Your task to perform on an android device: find snoozed emails in the gmail app Image 0: 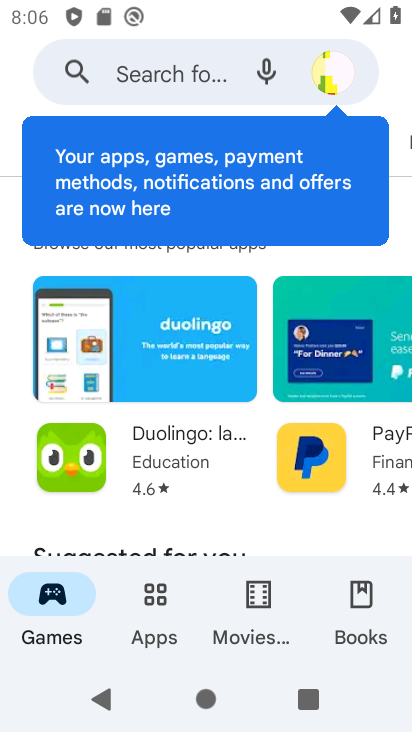
Step 0: press back button
Your task to perform on an android device: find snoozed emails in the gmail app Image 1: 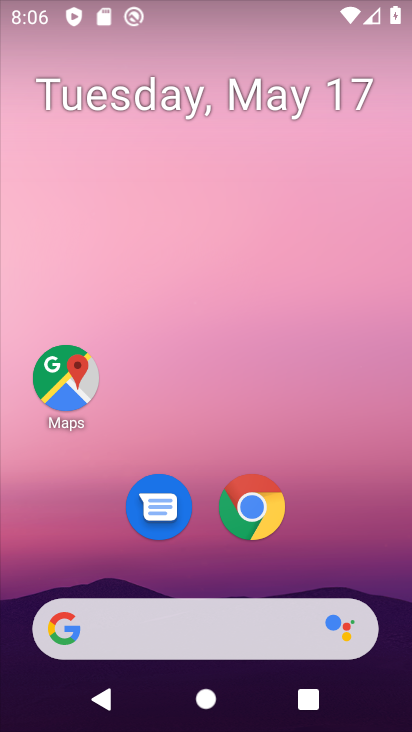
Step 1: drag from (339, 543) to (215, 58)
Your task to perform on an android device: find snoozed emails in the gmail app Image 2: 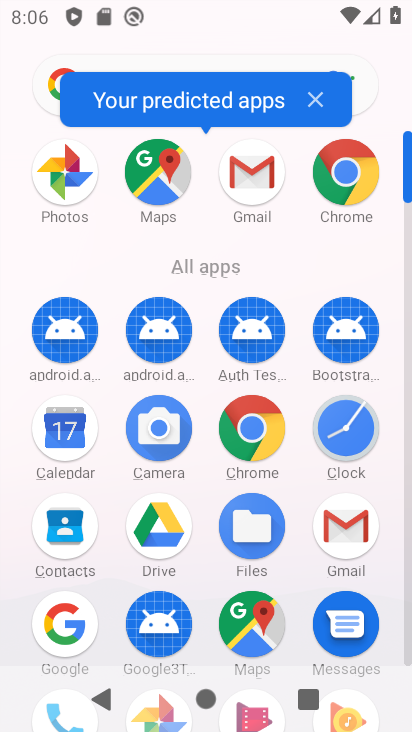
Step 2: click (248, 172)
Your task to perform on an android device: find snoozed emails in the gmail app Image 3: 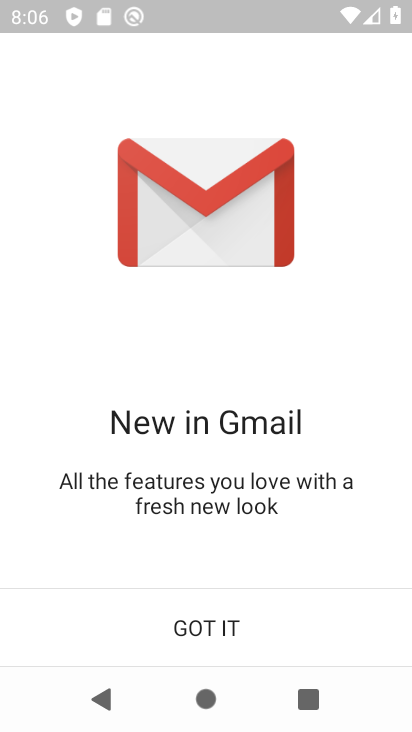
Step 3: click (215, 622)
Your task to perform on an android device: find snoozed emails in the gmail app Image 4: 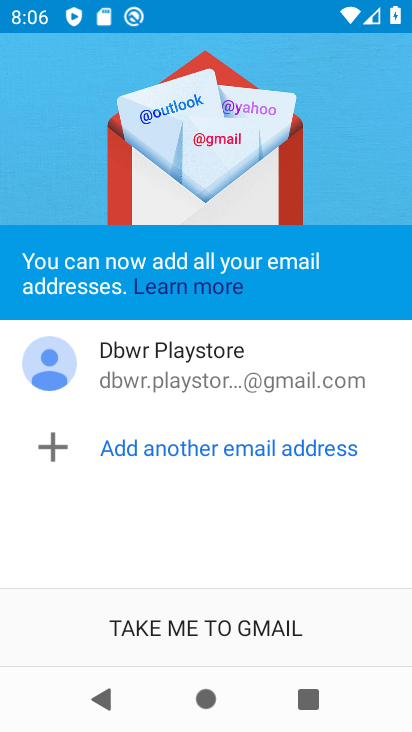
Step 4: click (215, 622)
Your task to perform on an android device: find snoozed emails in the gmail app Image 5: 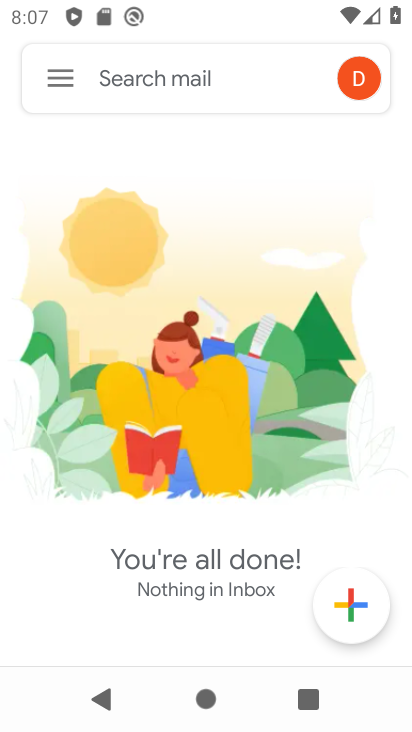
Step 5: click (71, 71)
Your task to perform on an android device: find snoozed emails in the gmail app Image 6: 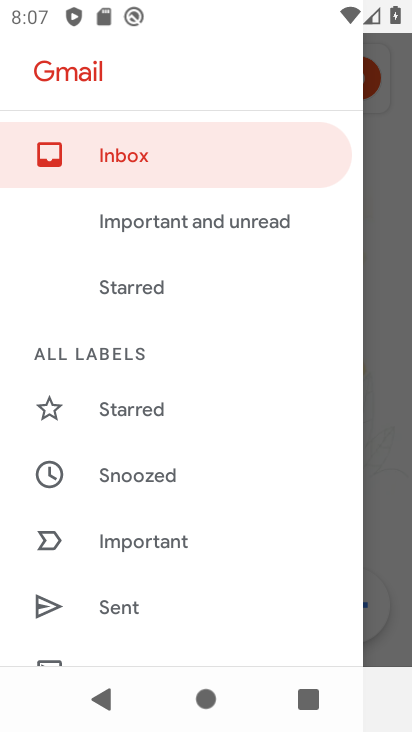
Step 6: drag from (129, 504) to (155, 424)
Your task to perform on an android device: find snoozed emails in the gmail app Image 7: 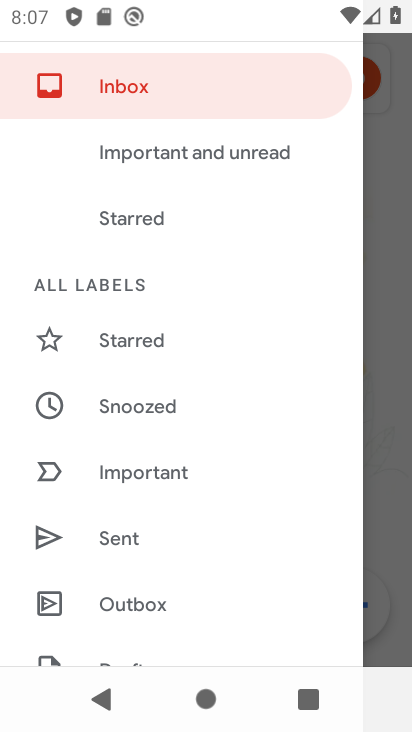
Step 7: click (135, 407)
Your task to perform on an android device: find snoozed emails in the gmail app Image 8: 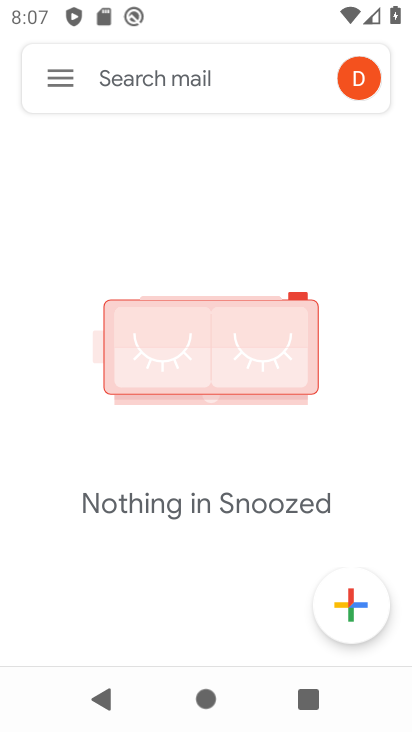
Step 8: click (62, 86)
Your task to perform on an android device: find snoozed emails in the gmail app Image 9: 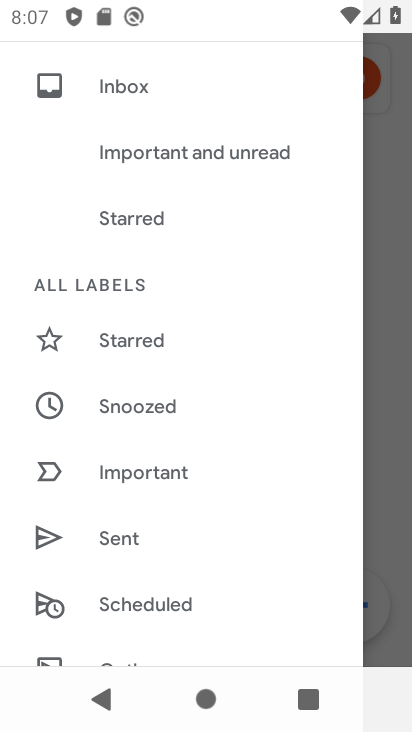
Step 9: drag from (131, 434) to (162, 376)
Your task to perform on an android device: find snoozed emails in the gmail app Image 10: 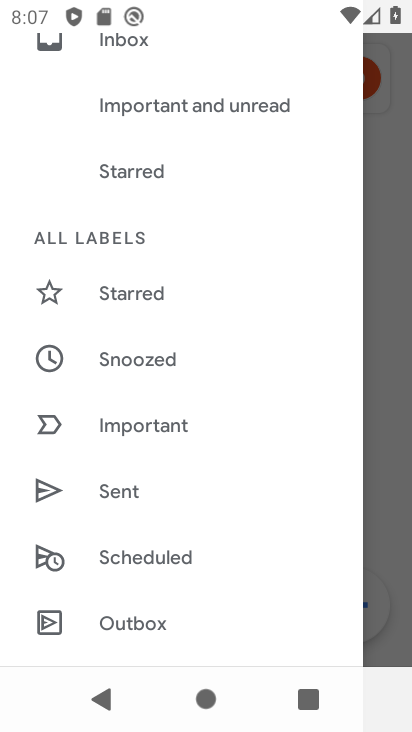
Step 10: click (153, 554)
Your task to perform on an android device: find snoozed emails in the gmail app Image 11: 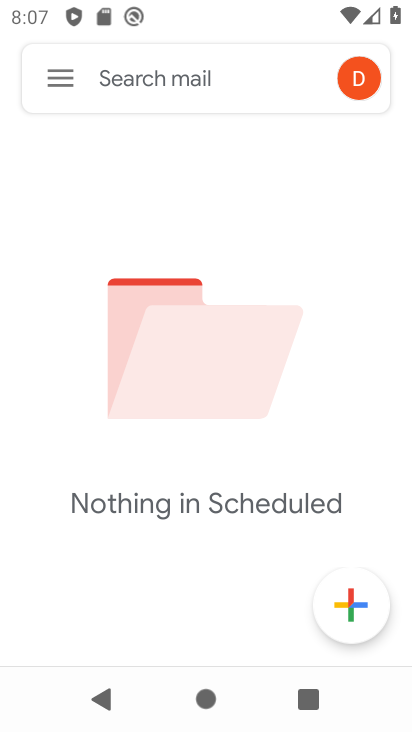
Step 11: click (75, 84)
Your task to perform on an android device: find snoozed emails in the gmail app Image 12: 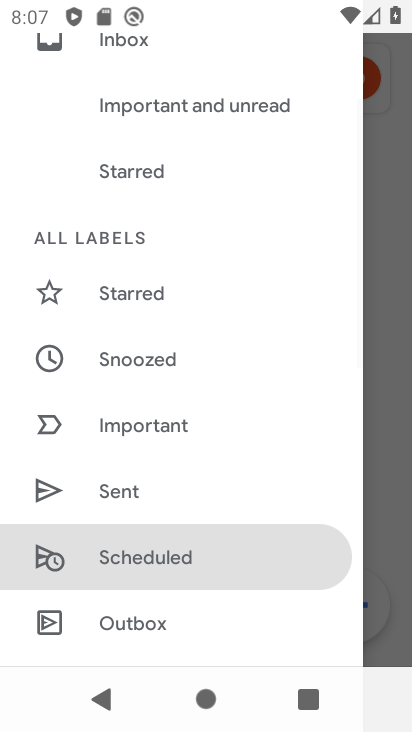
Step 12: drag from (143, 487) to (208, 361)
Your task to perform on an android device: find snoozed emails in the gmail app Image 13: 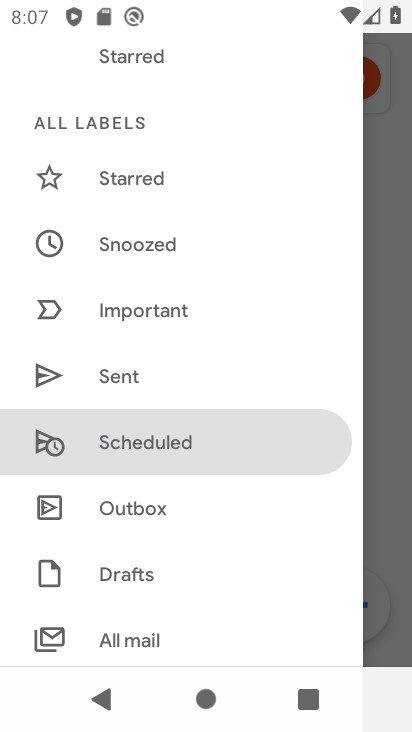
Step 13: drag from (151, 541) to (201, 425)
Your task to perform on an android device: find snoozed emails in the gmail app Image 14: 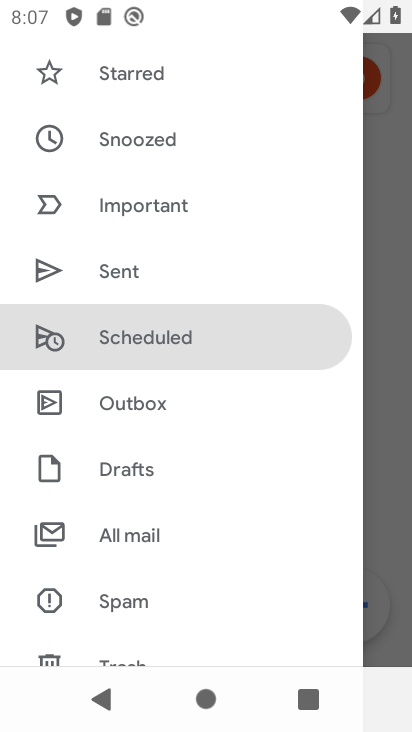
Step 14: click (138, 534)
Your task to perform on an android device: find snoozed emails in the gmail app Image 15: 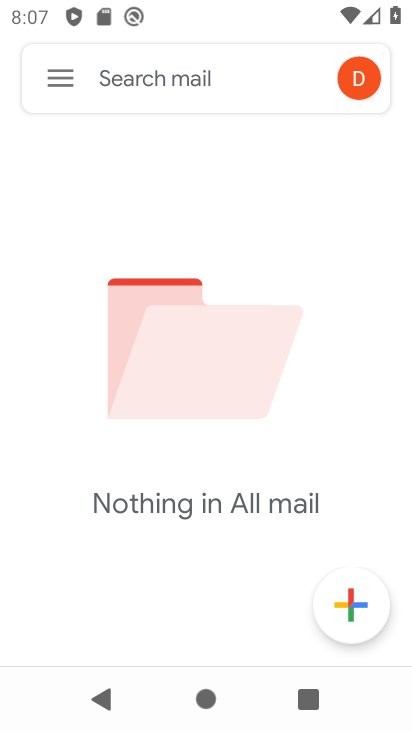
Step 15: task complete